Your task to perform on an android device: When is my next meeting? Image 0: 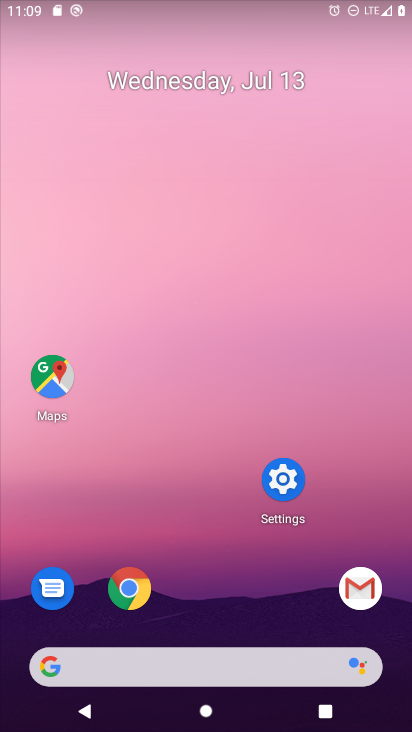
Step 0: press home button
Your task to perform on an android device: When is my next meeting? Image 1: 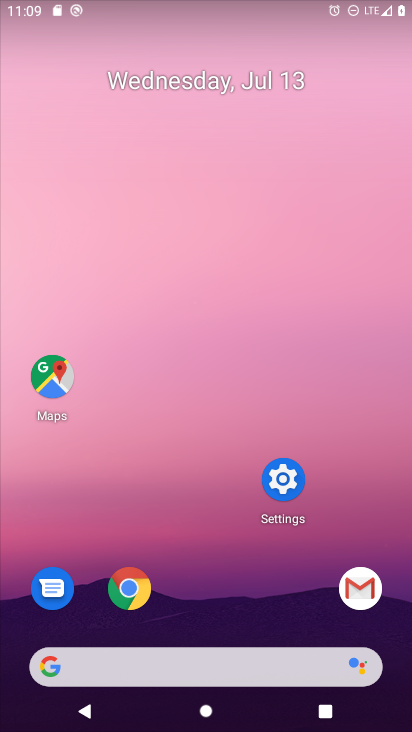
Step 1: drag from (264, 666) to (191, 256)
Your task to perform on an android device: When is my next meeting? Image 2: 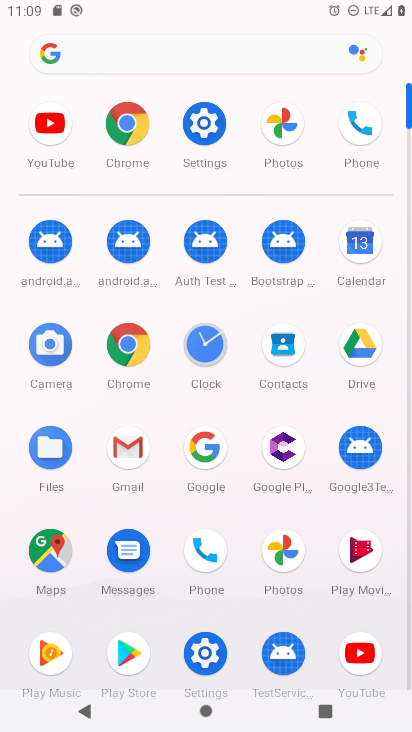
Step 2: click (343, 258)
Your task to perform on an android device: When is my next meeting? Image 3: 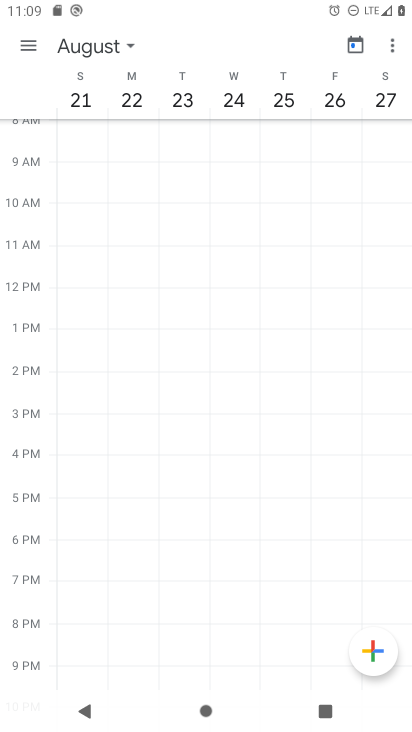
Step 3: click (33, 57)
Your task to perform on an android device: When is my next meeting? Image 4: 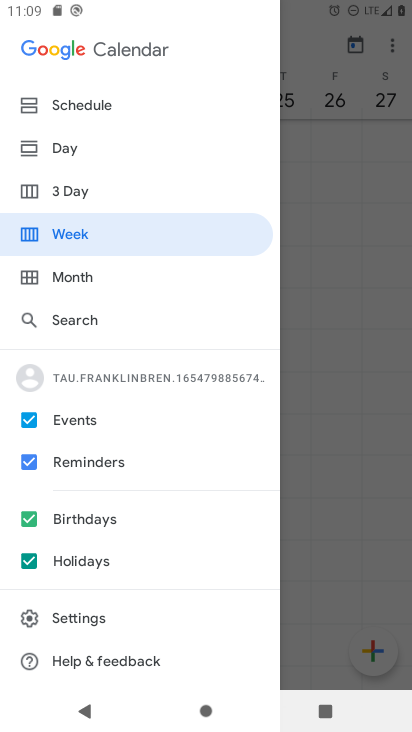
Step 4: click (87, 266)
Your task to perform on an android device: When is my next meeting? Image 5: 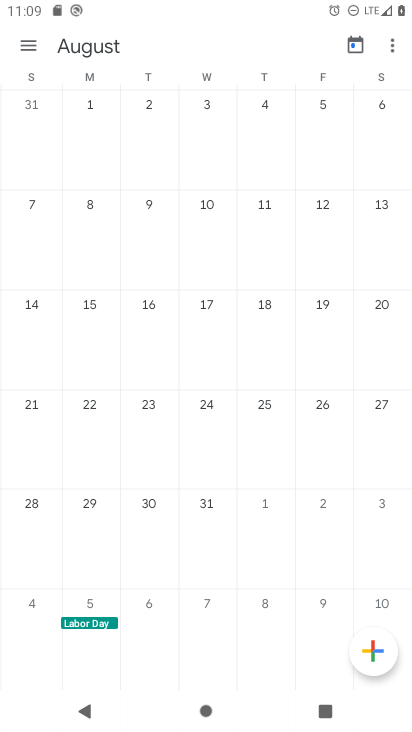
Step 5: drag from (20, 406) to (406, 192)
Your task to perform on an android device: When is my next meeting? Image 6: 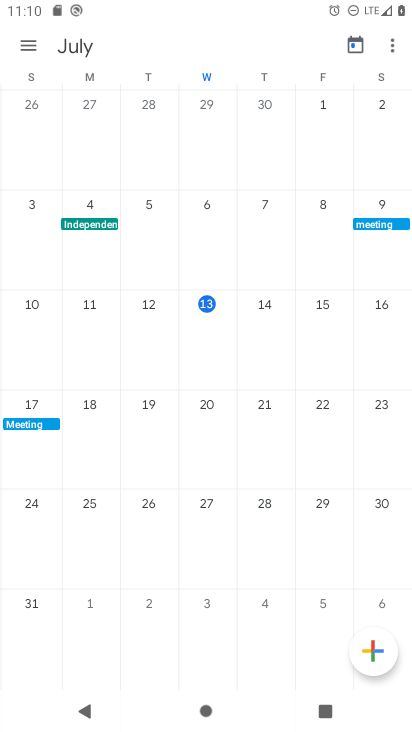
Step 6: click (198, 312)
Your task to perform on an android device: When is my next meeting? Image 7: 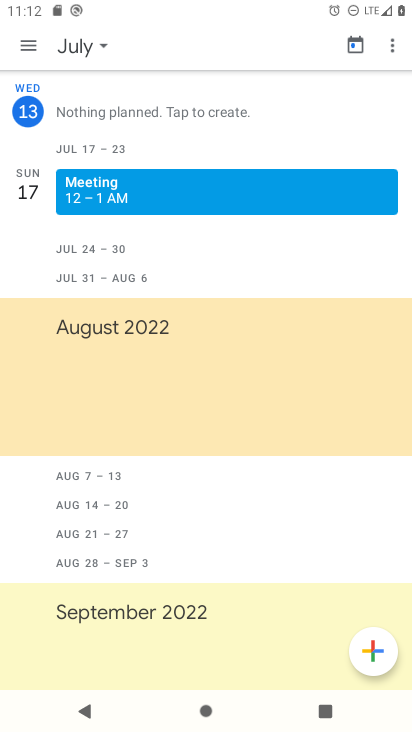
Step 7: task complete